Your task to perform on an android device: toggle notifications settings in the gmail app Image 0: 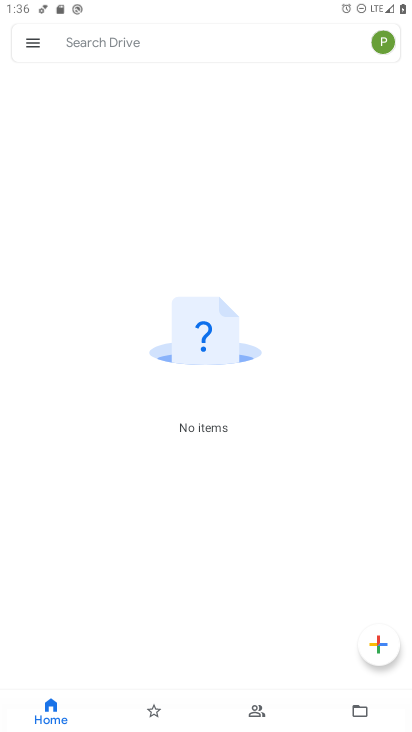
Step 0: press home button
Your task to perform on an android device: toggle notifications settings in the gmail app Image 1: 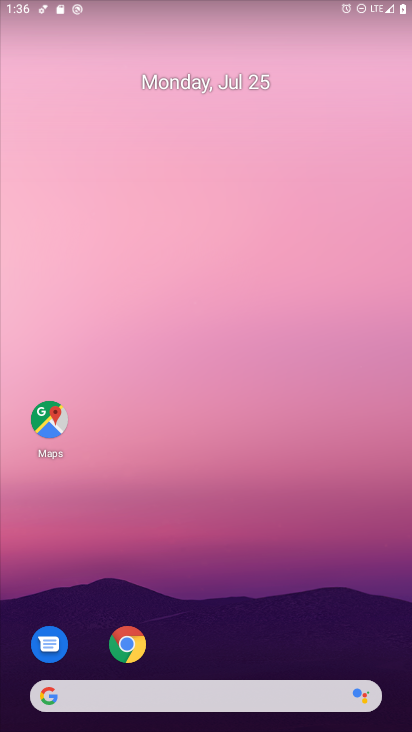
Step 1: drag from (262, 654) to (264, 8)
Your task to perform on an android device: toggle notifications settings in the gmail app Image 2: 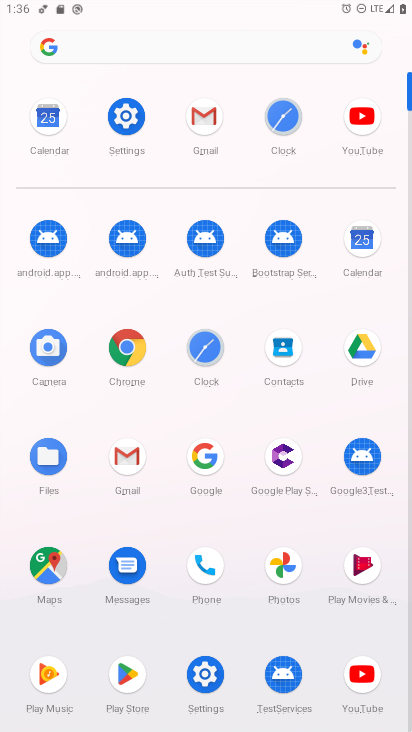
Step 2: click (119, 461)
Your task to perform on an android device: toggle notifications settings in the gmail app Image 3: 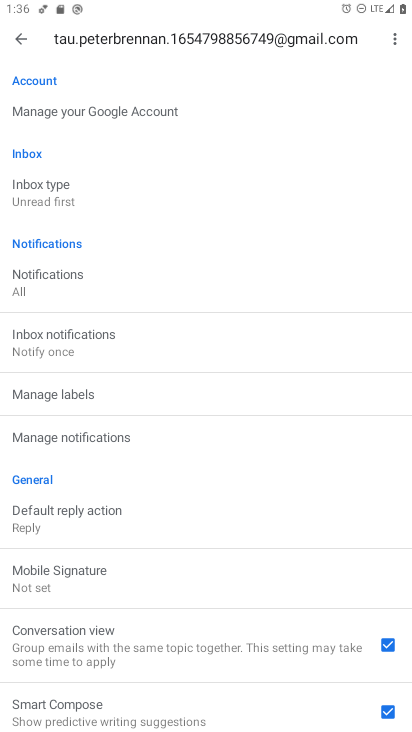
Step 3: click (61, 436)
Your task to perform on an android device: toggle notifications settings in the gmail app Image 4: 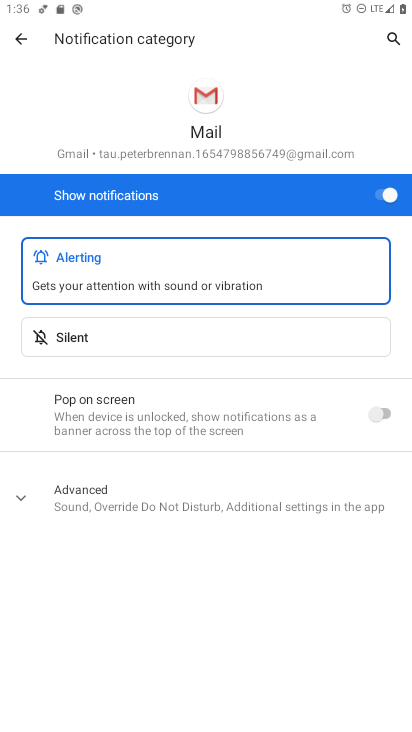
Step 4: click (384, 201)
Your task to perform on an android device: toggle notifications settings in the gmail app Image 5: 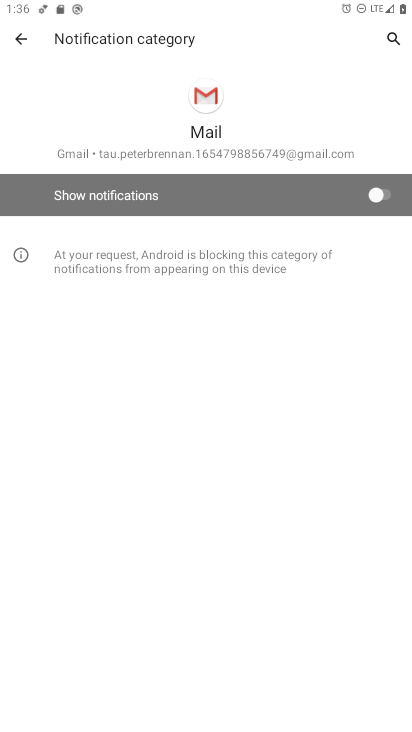
Step 5: task complete